Your task to perform on an android device: toggle notification dots Image 0: 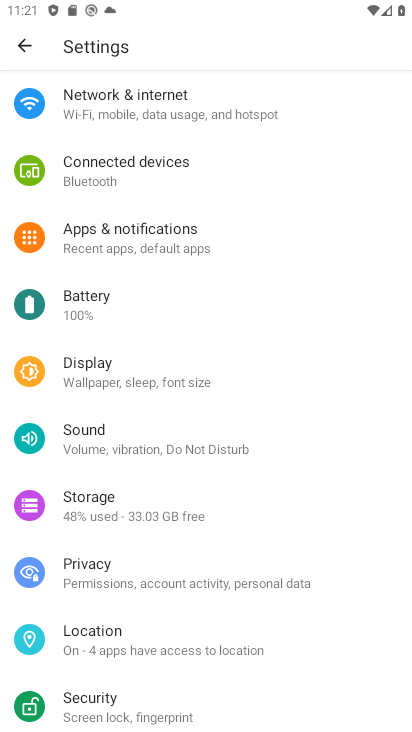
Step 0: press home button
Your task to perform on an android device: toggle notification dots Image 1: 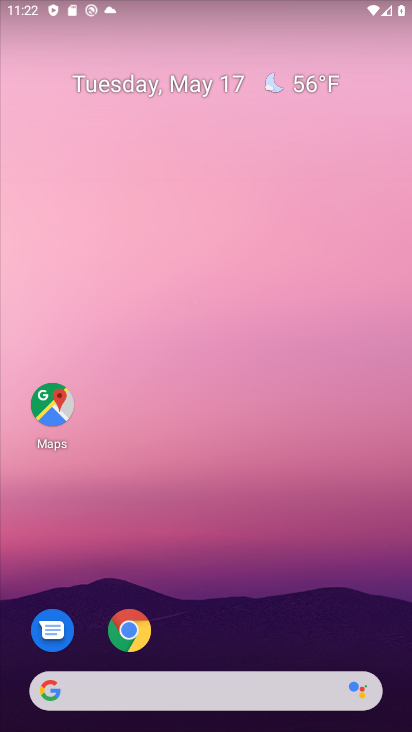
Step 1: drag from (346, 630) to (348, 231)
Your task to perform on an android device: toggle notification dots Image 2: 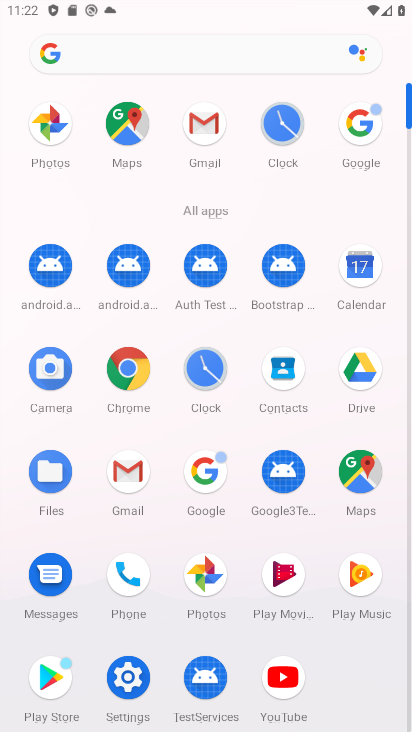
Step 2: click (128, 671)
Your task to perform on an android device: toggle notification dots Image 3: 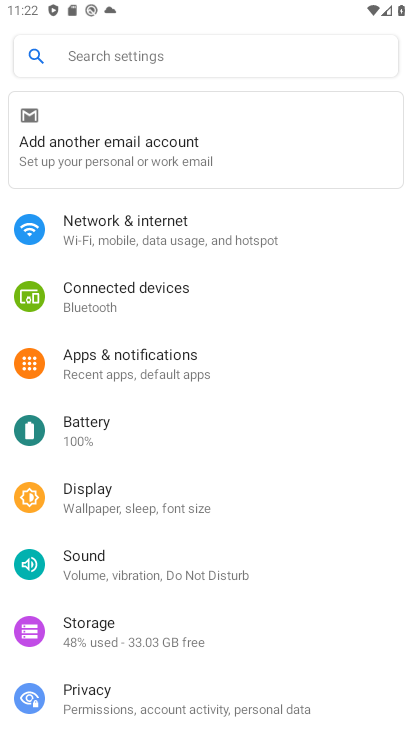
Step 3: click (153, 362)
Your task to perform on an android device: toggle notification dots Image 4: 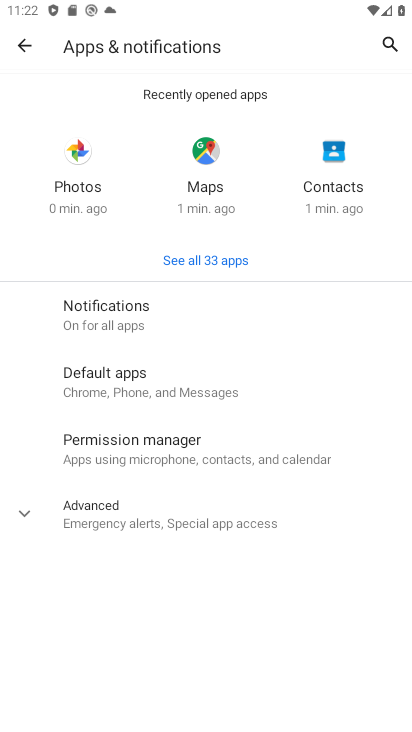
Step 4: click (154, 312)
Your task to perform on an android device: toggle notification dots Image 5: 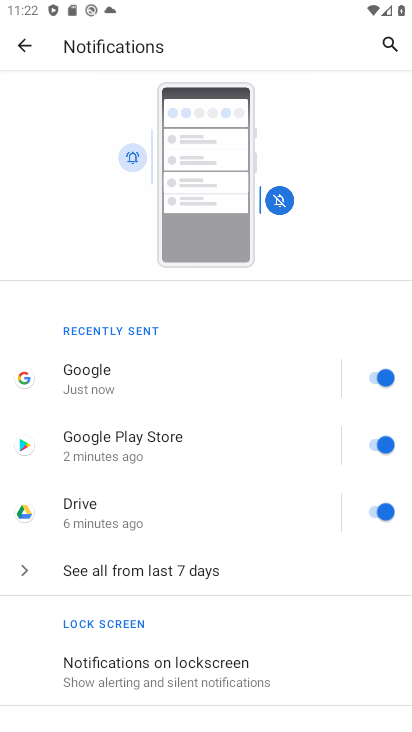
Step 5: drag from (215, 627) to (217, 402)
Your task to perform on an android device: toggle notification dots Image 6: 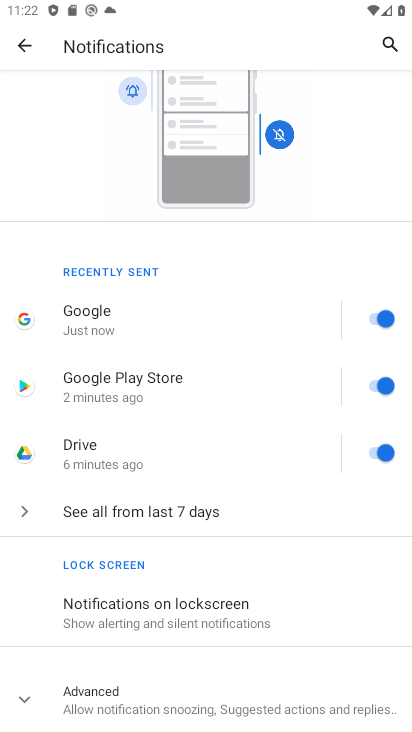
Step 6: click (206, 689)
Your task to perform on an android device: toggle notification dots Image 7: 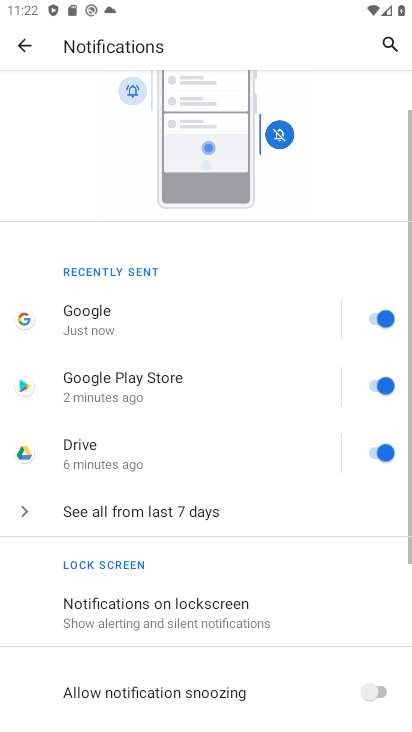
Step 7: drag from (241, 685) to (246, 381)
Your task to perform on an android device: toggle notification dots Image 8: 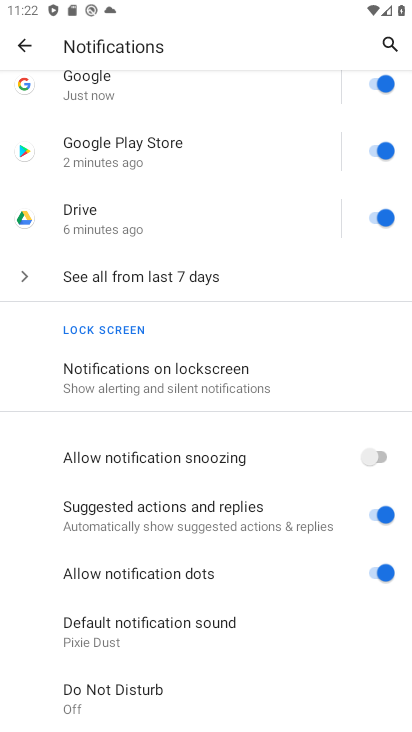
Step 8: click (385, 567)
Your task to perform on an android device: toggle notification dots Image 9: 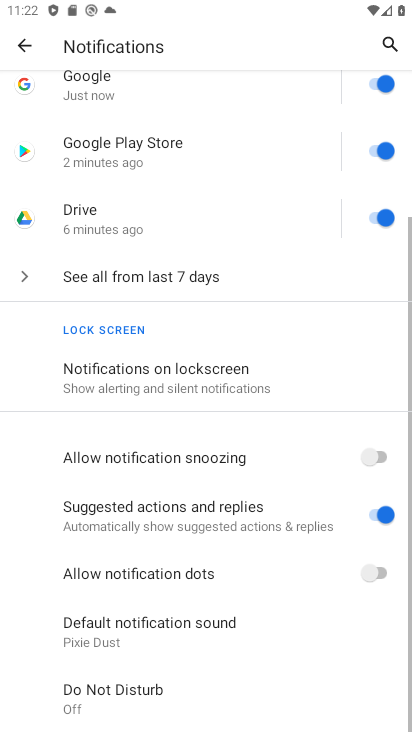
Step 9: task complete